Your task to perform on an android device: Go to accessibility settings Image 0: 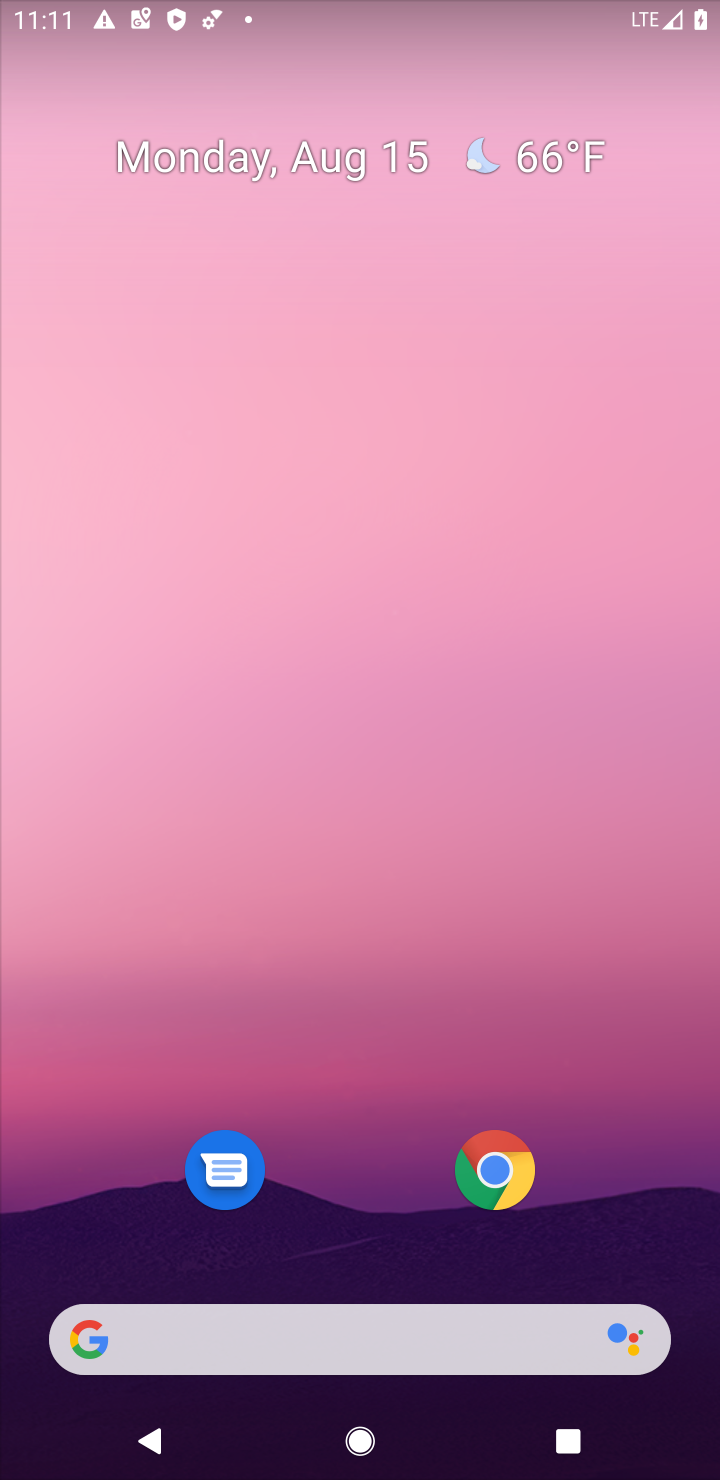
Step 0: drag from (389, 1078) to (402, 49)
Your task to perform on an android device: Go to accessibility settings Image 1: 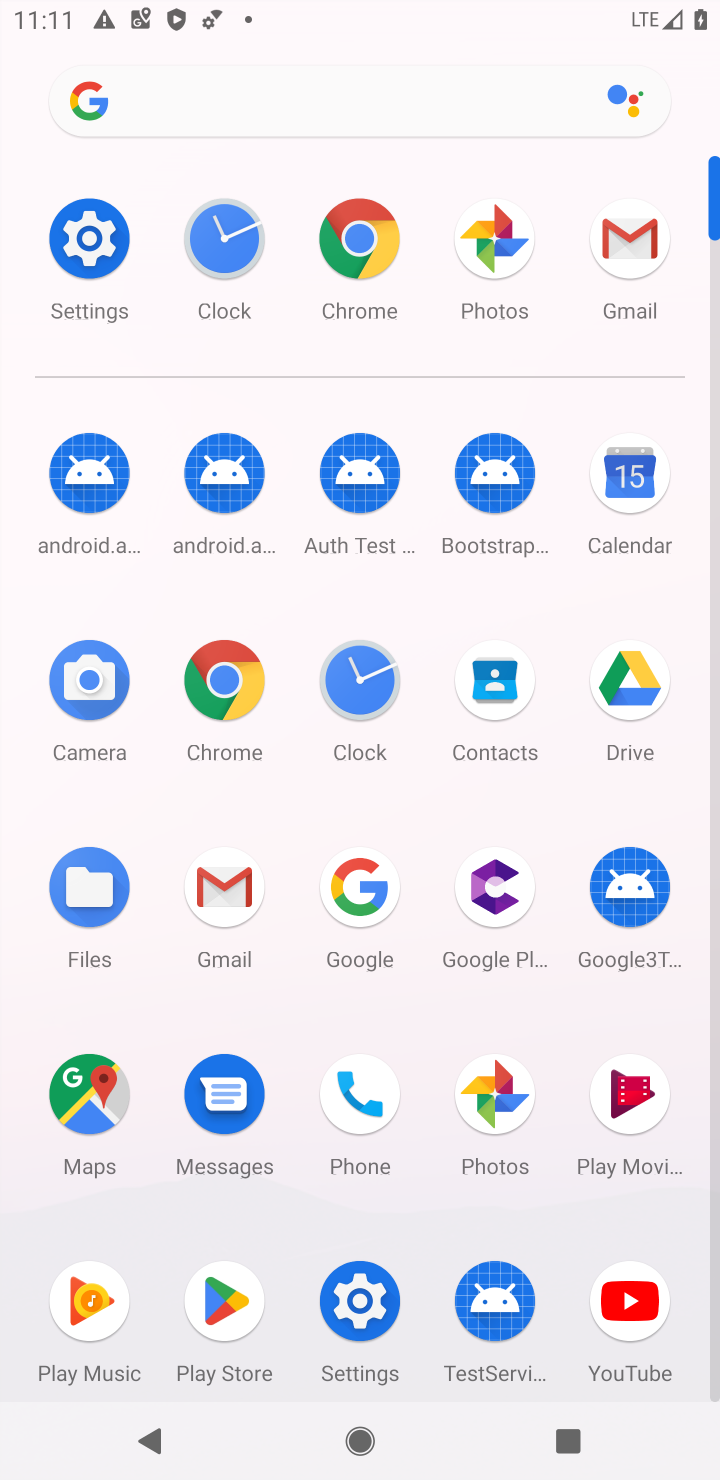
Step 1: click (358, 1291)
Your task to perform on an android device: Go to accessibility settings Image 2: 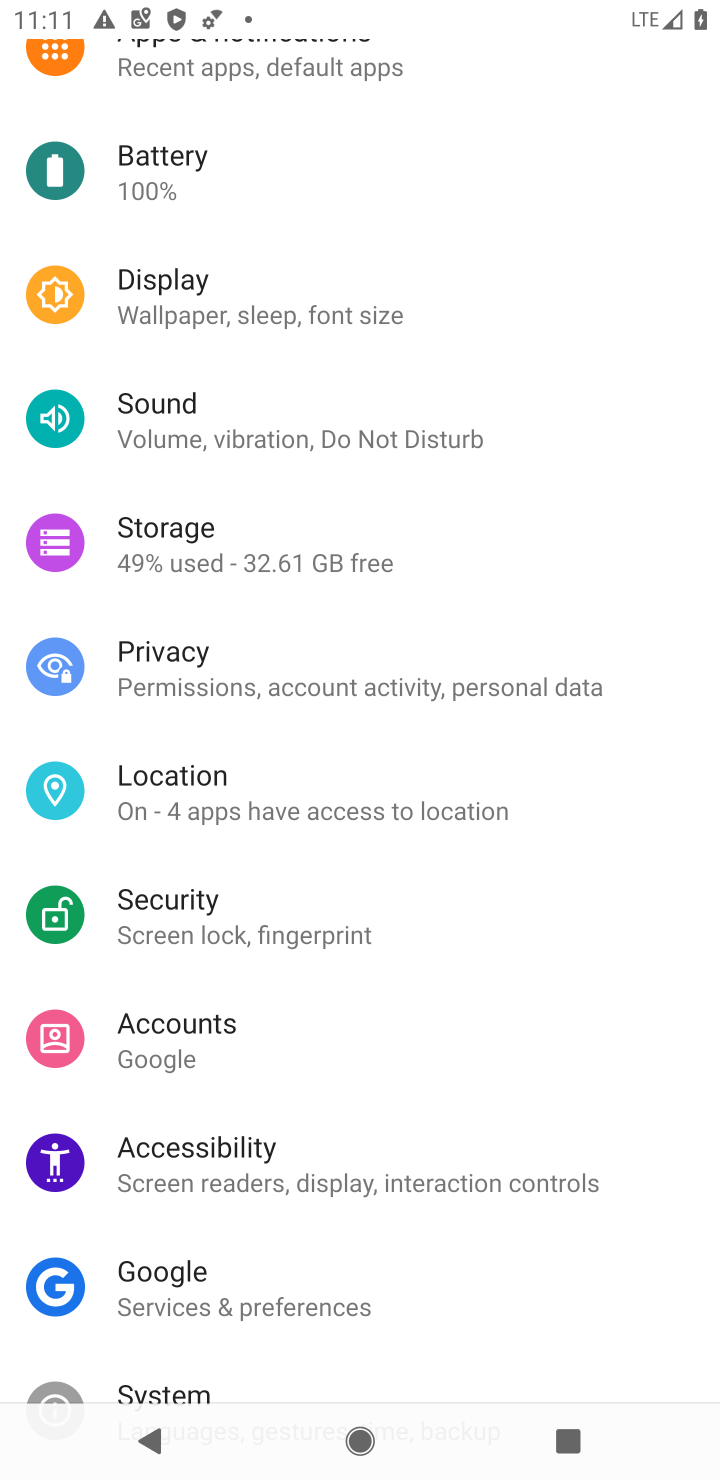
Step 2: click (285, 1145)
Your task to perform on an android device: Go to accessibility settings Image 3: 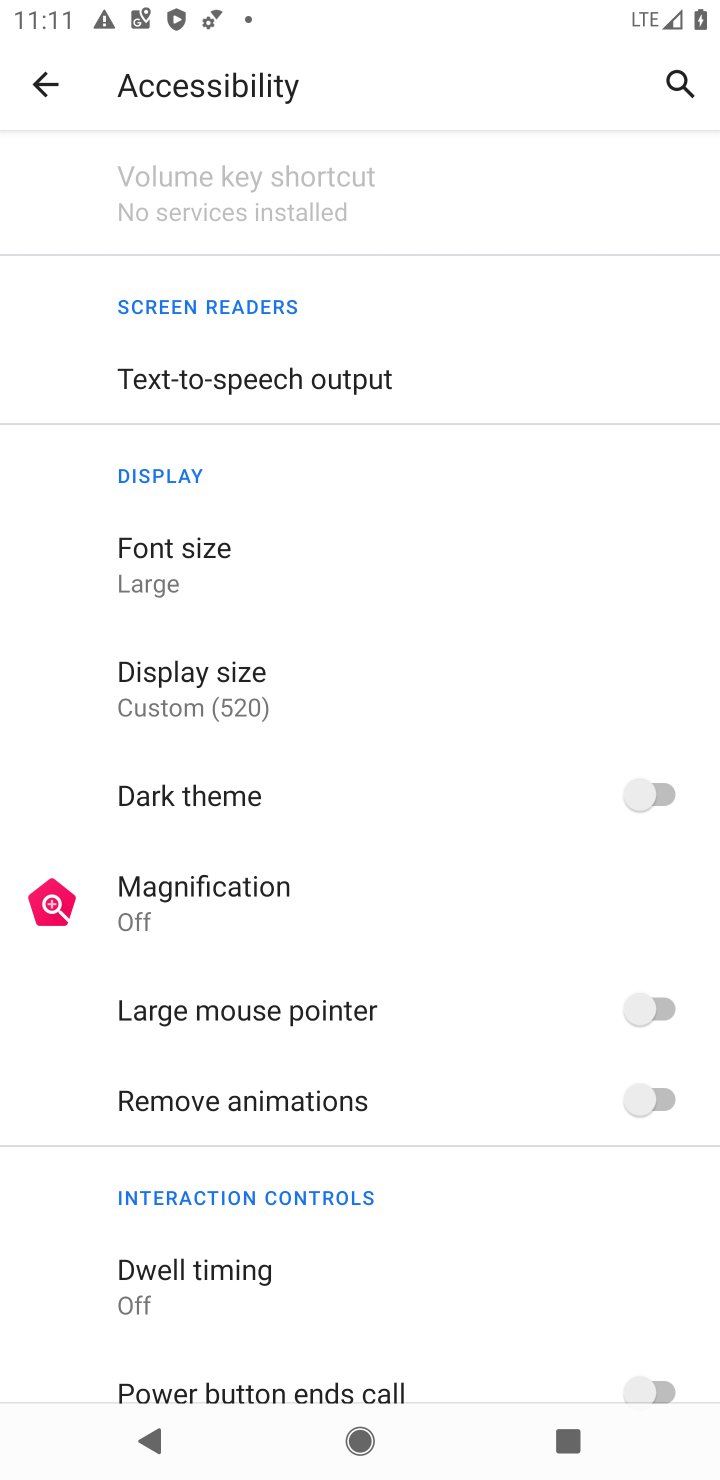
Step 3: click (285, 1145)
Your task to perform on an android device: Go to accessibility settings Image 4: 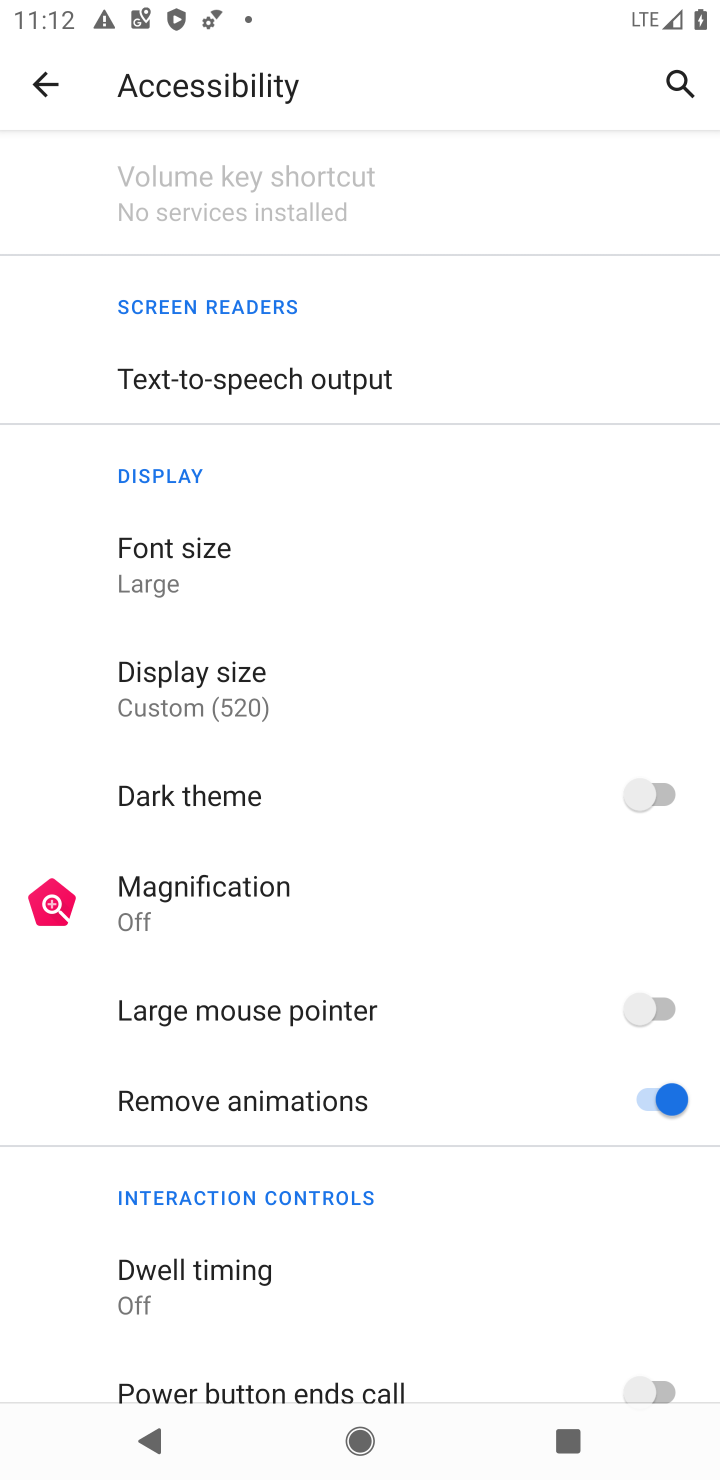
Step 4: drag from (407, 1144) to (484, 184)
Your task to perform on an android device: Go to accessibility settings Image 5: 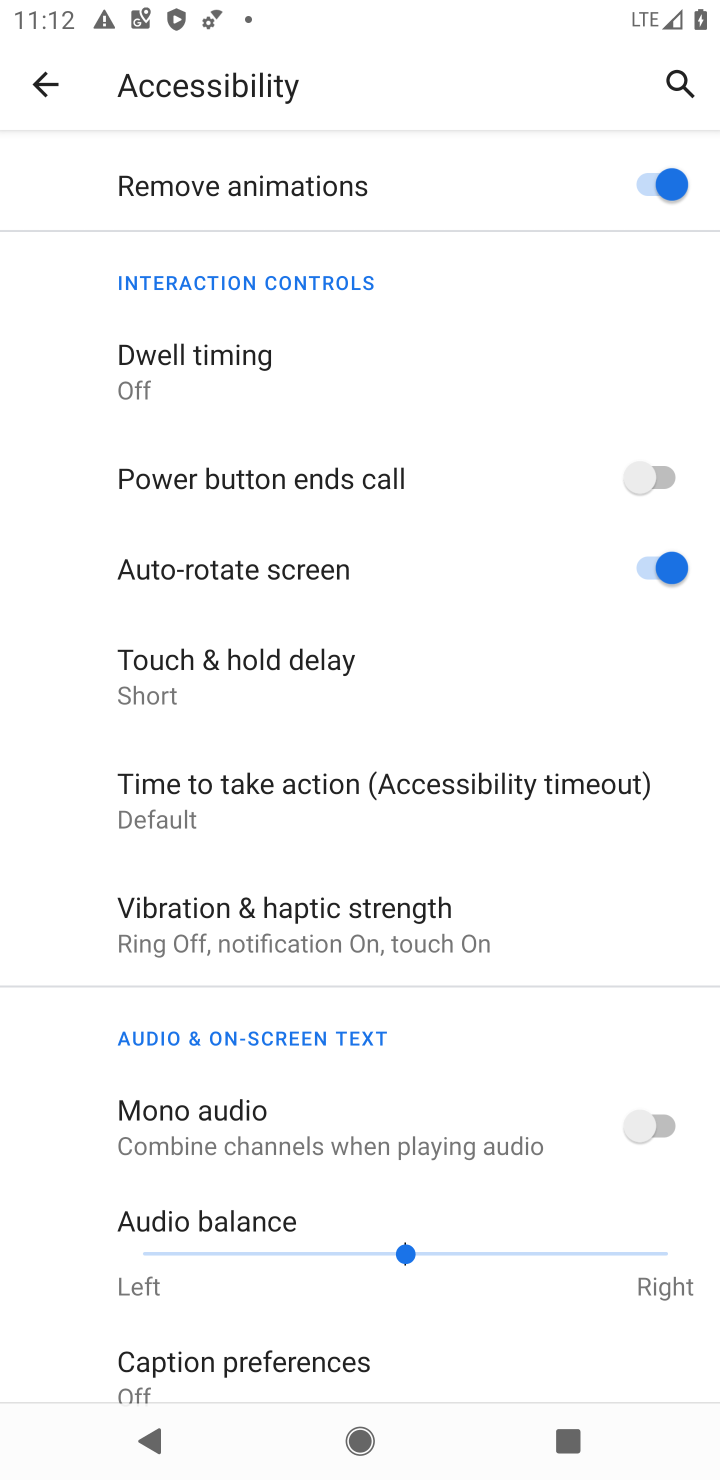
Step 5: drag from (467, 1095) to (518, 204)
Your task to perform on an android device: Go to accessibility settings Image 6: 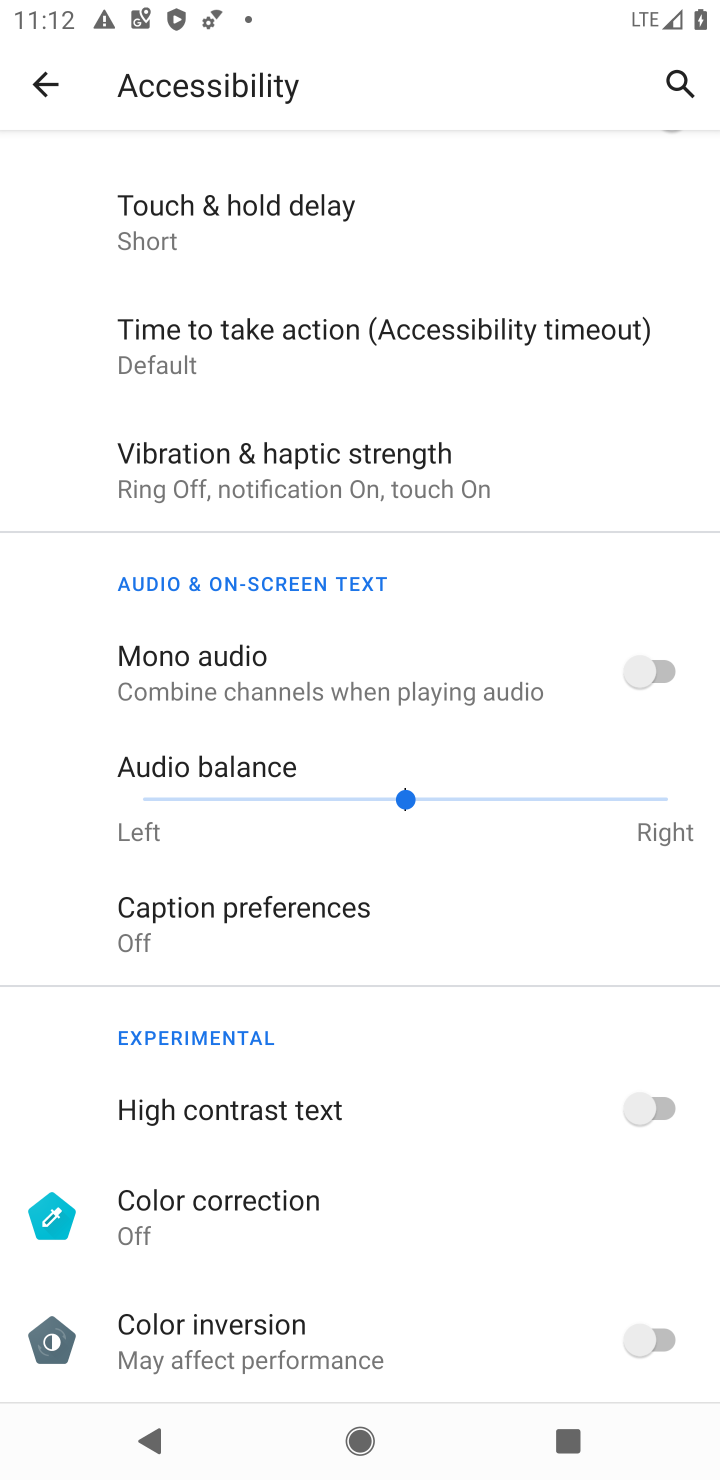
Step 6: click (494, 304)
Your task to perform on an android device: Go to accessibility settings Image 7: 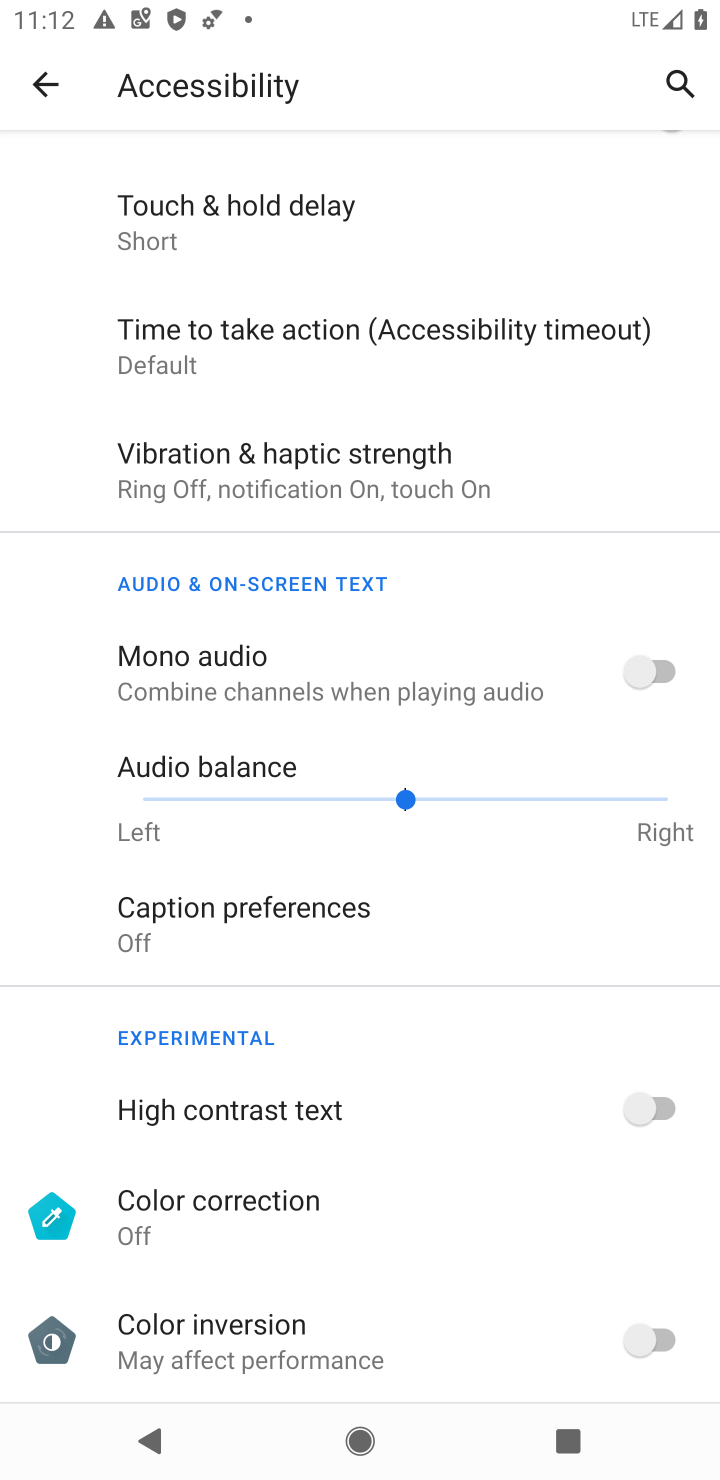
Step 7: task complete